Your task to perform on an android device: Add logitech g933 to the cart on target Image 0: 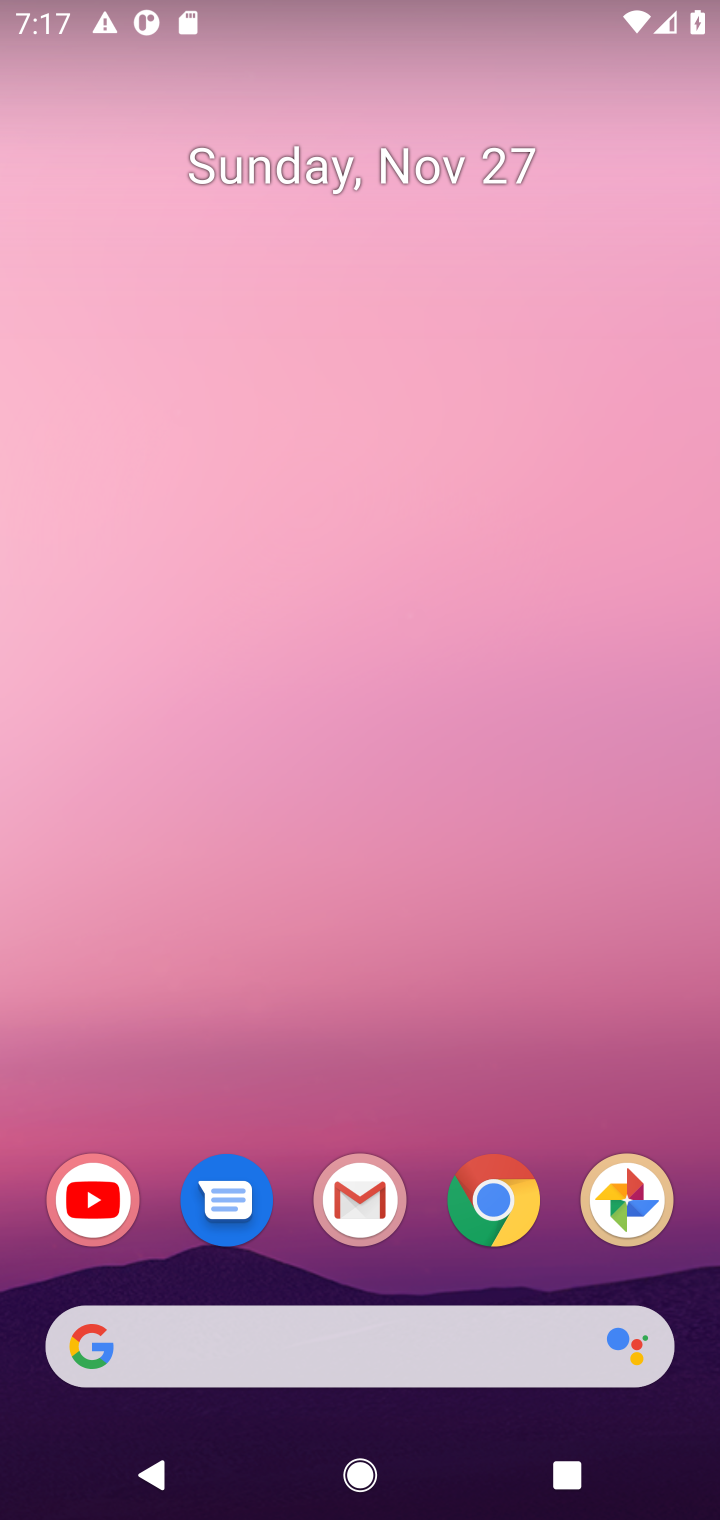
Step 0: click (486, 1216)
Your task to perform on an android device: Add logitech g933 to the cart on target Image 1: 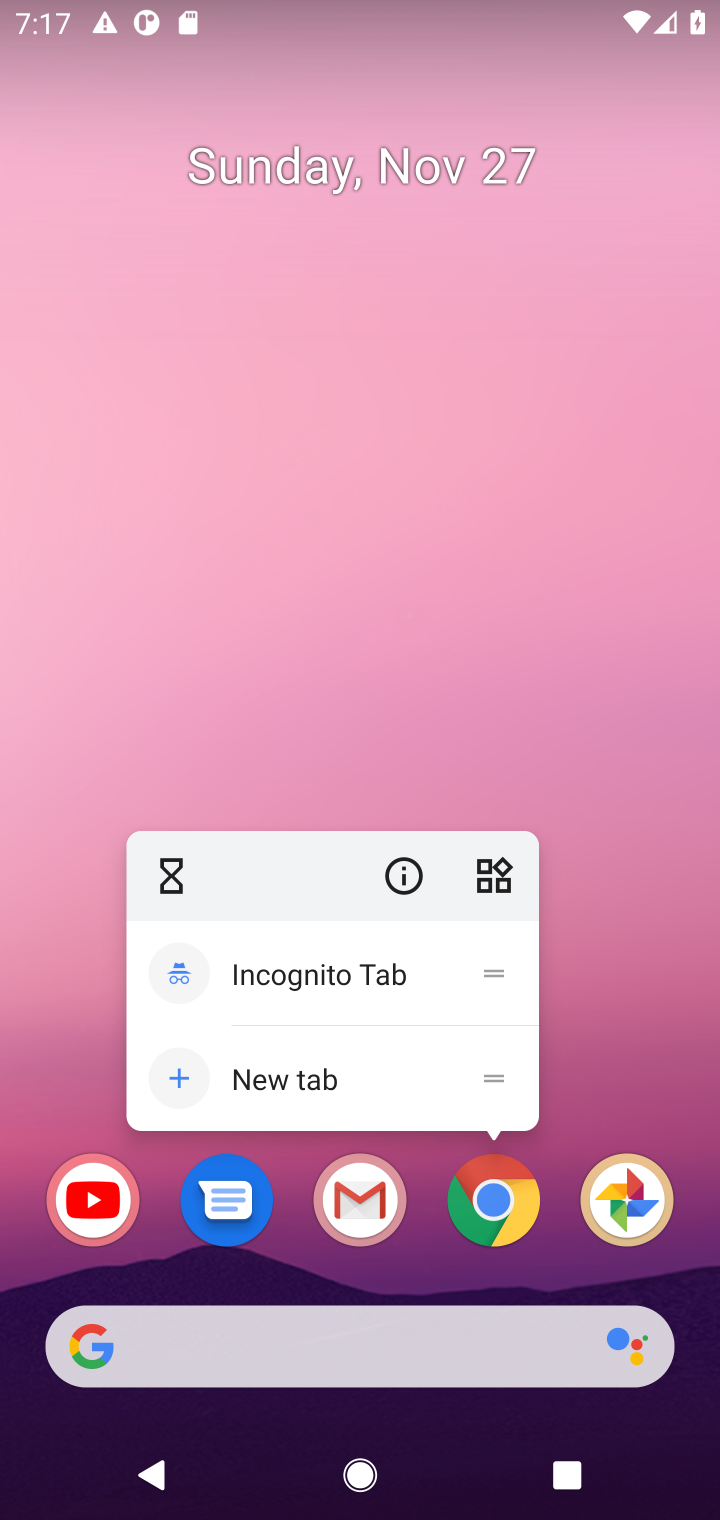
Step 1: click (486, 1216)
Your task to perform on an android device: Add logitech g933 to the cart on target Image 2: 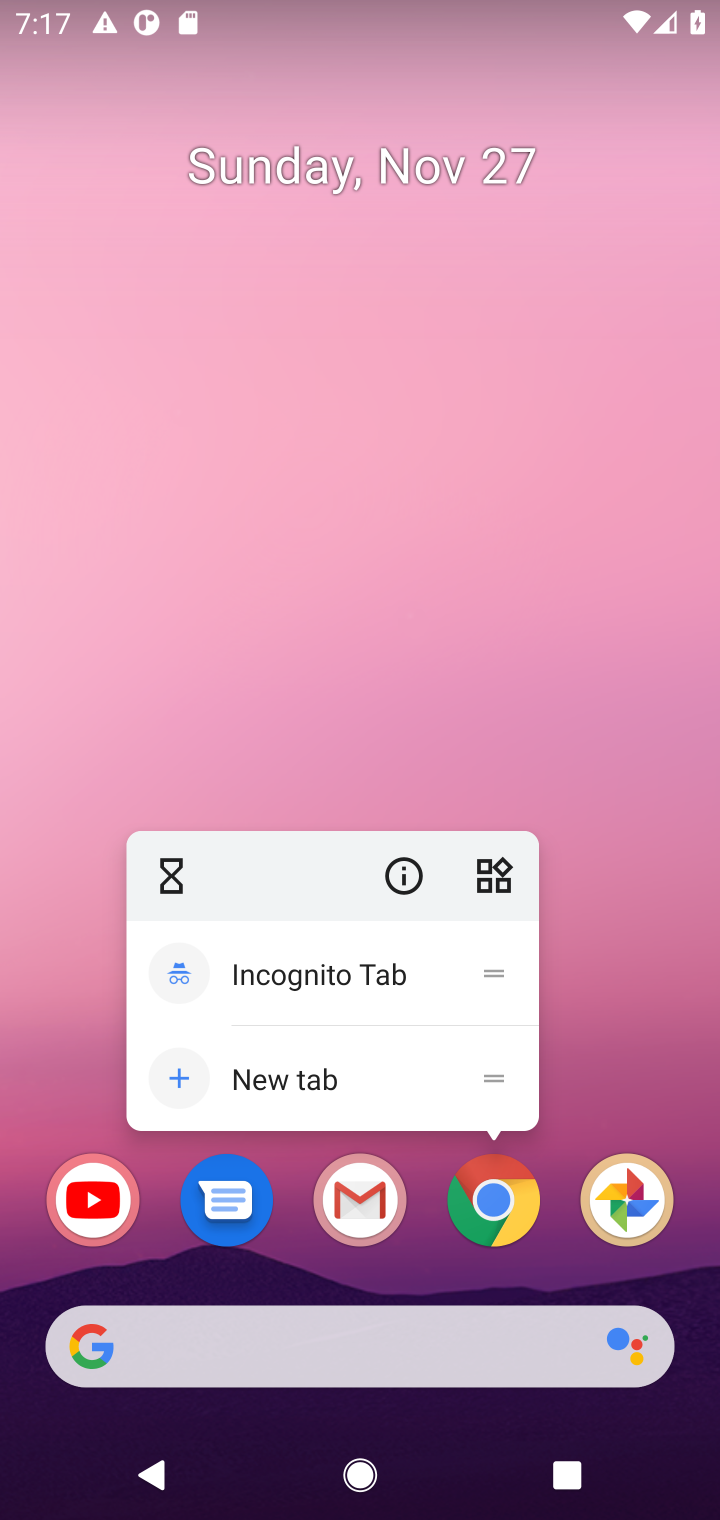
Step 2: click (486, 1216)
Your task to perform on an android device: Add logitech g933 to the cart on target Image 3: 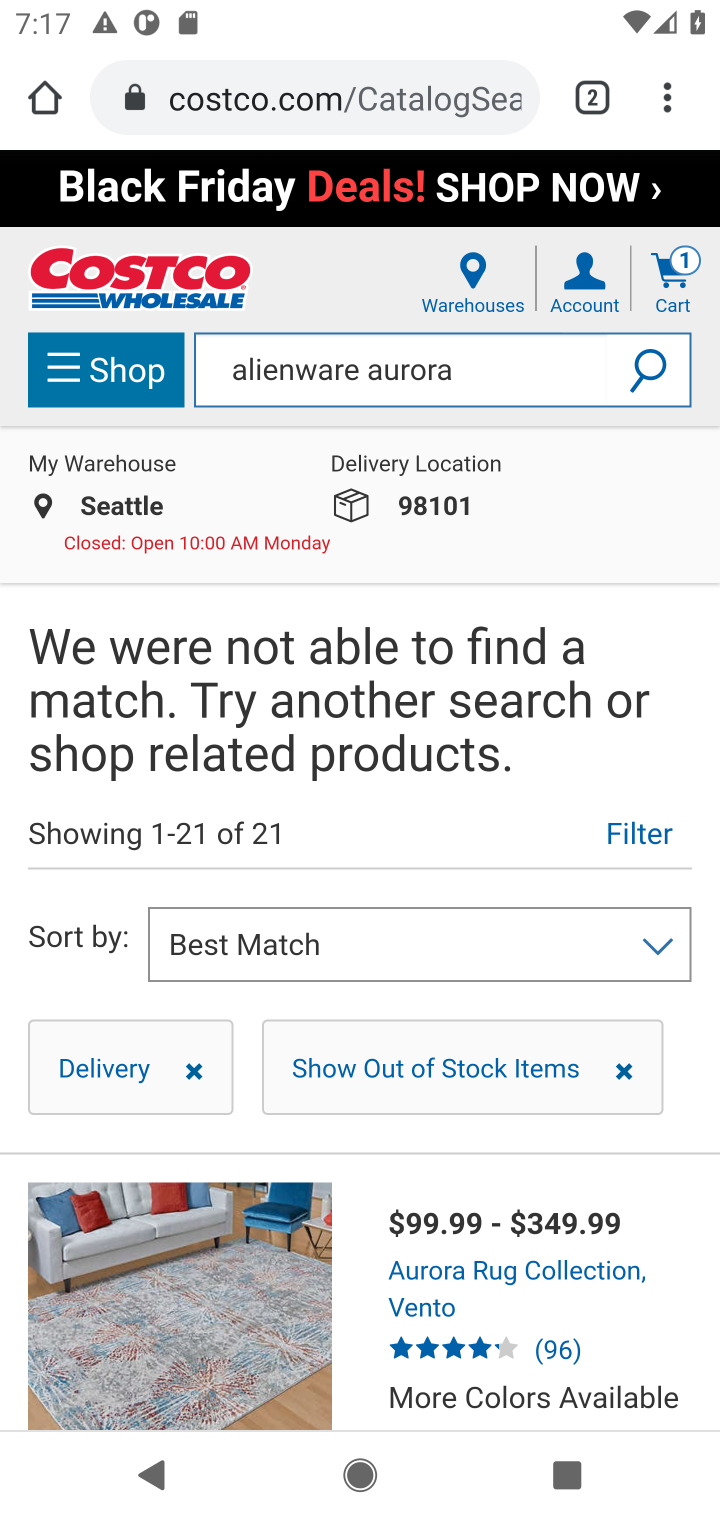
Step 3: click (295, 118)
Your task to perform on an android device: Add logitech g933 to the cart on target Image 4: 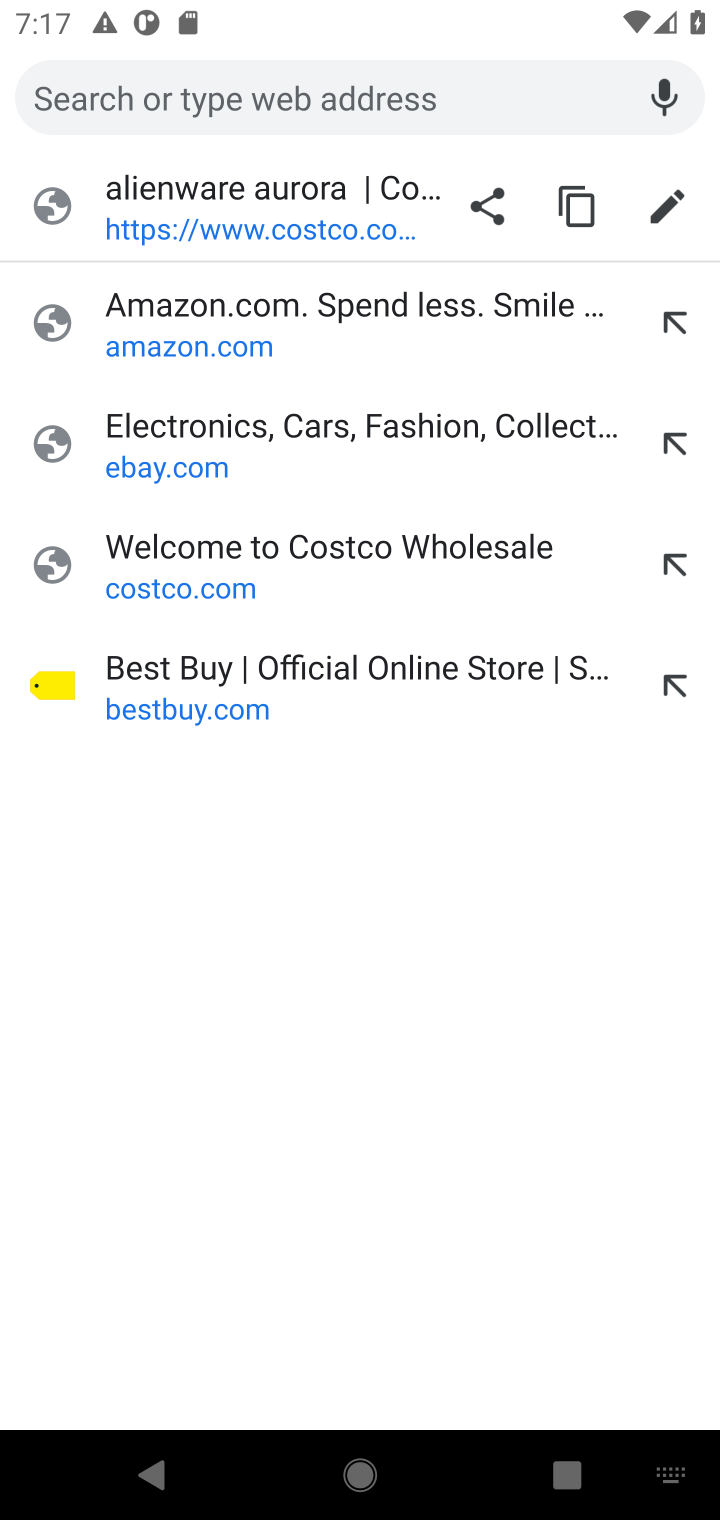
Step 4: type "target.com"
Your task to perform on an android device: Add logitech g933 to the cart on target Image 5: 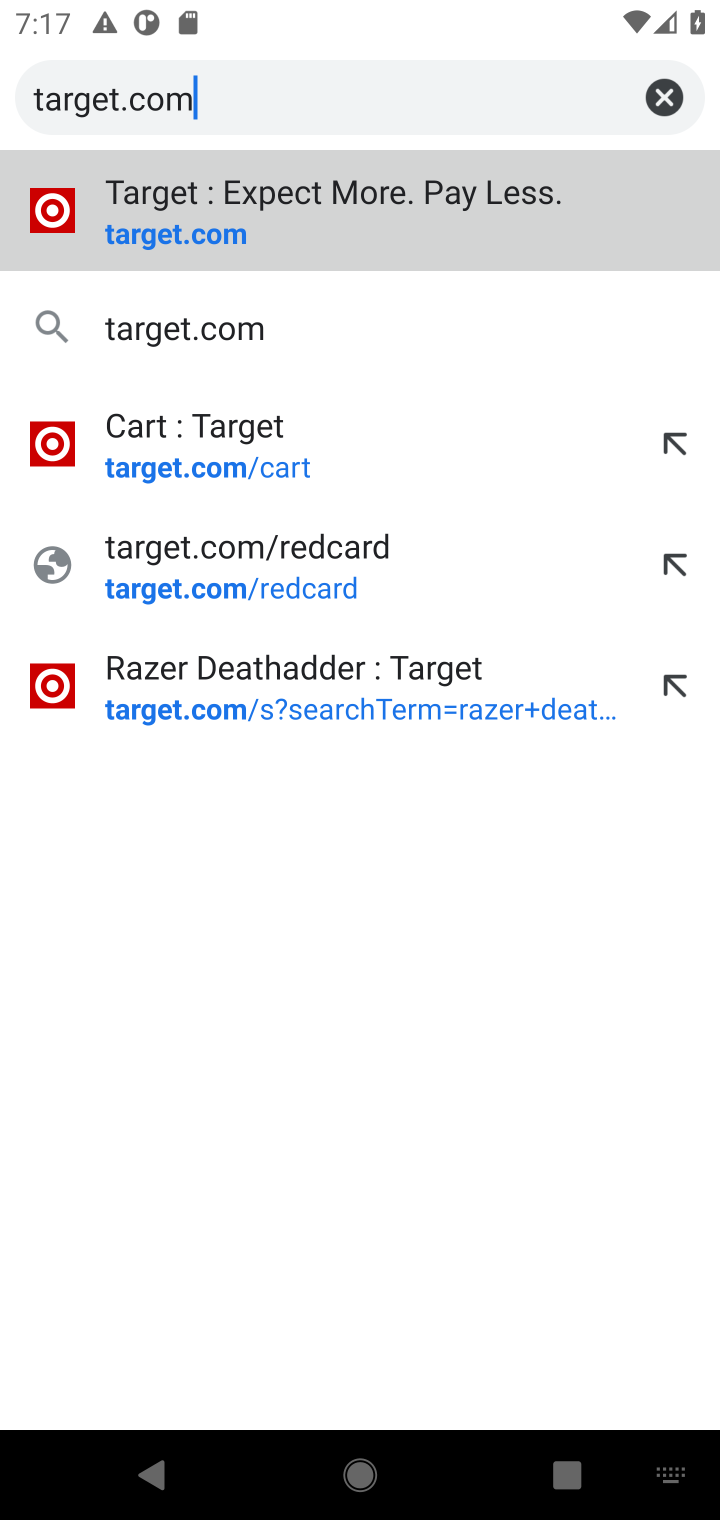
Step 5: click (127, 93)
Your task to perform on an android device: Add logitech g933 to the cart on target Image 6: 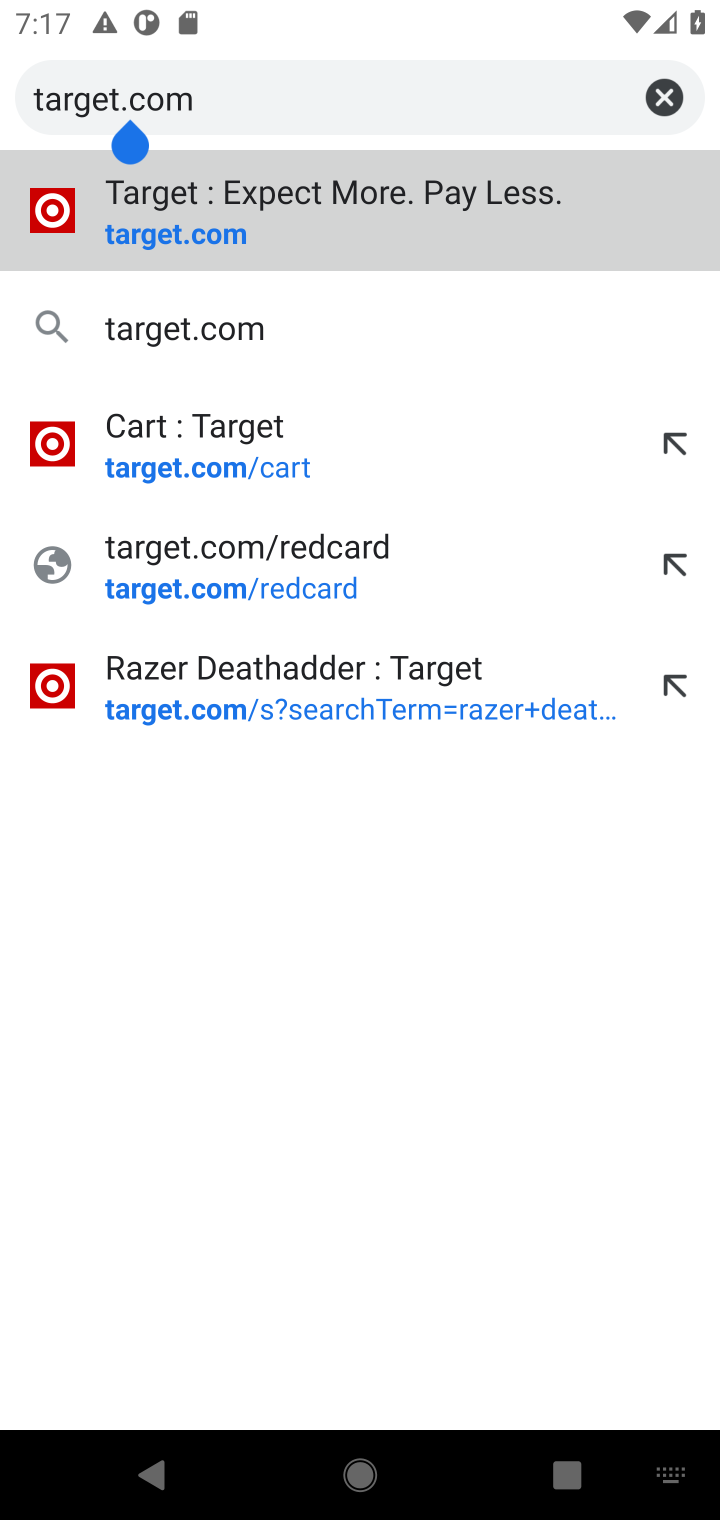
Step 6: click (112, 209)
Your task to perform on an android device: Add logitech g933 to the cart on target Image 7: 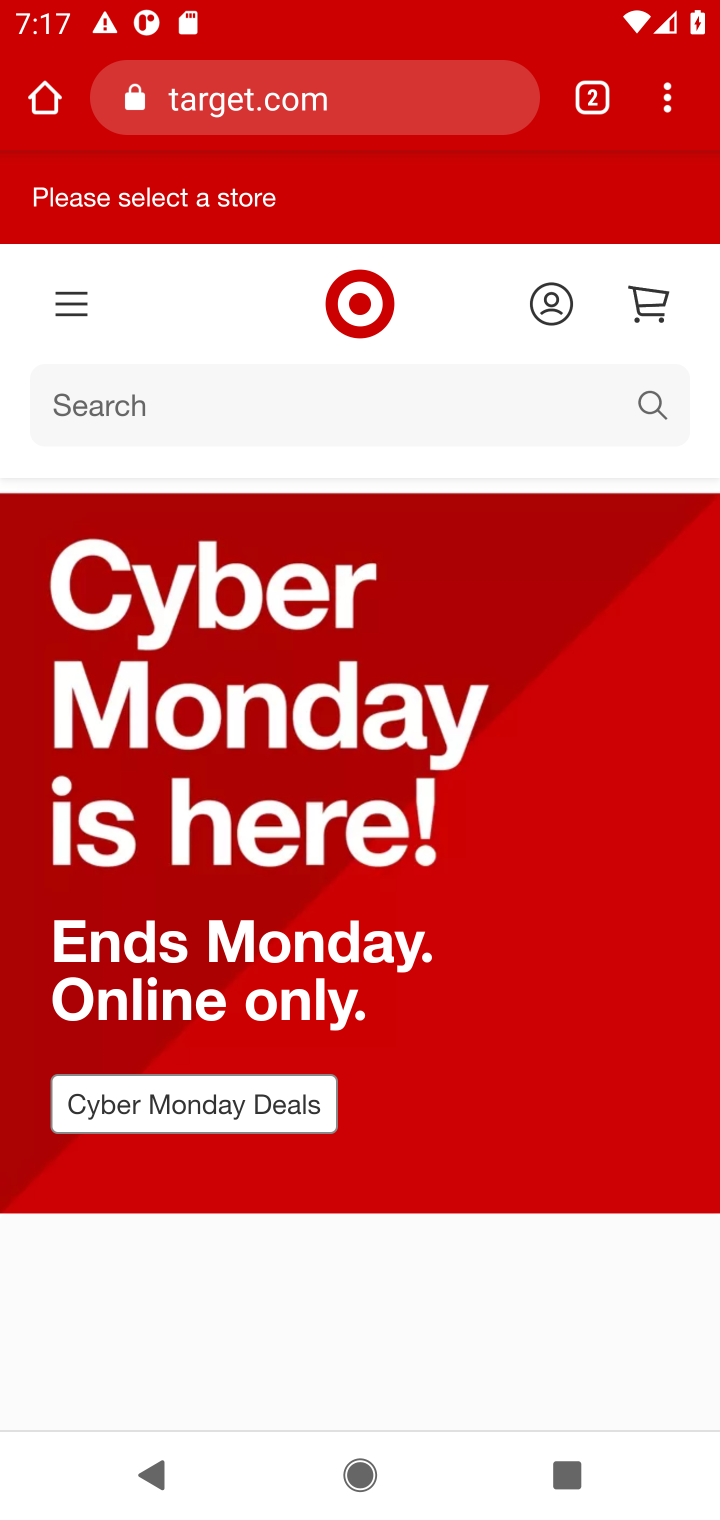
Step 7: click (653, 411)
Your task to perform on an android device: Add logitech g933 to the cart on target Image 8: 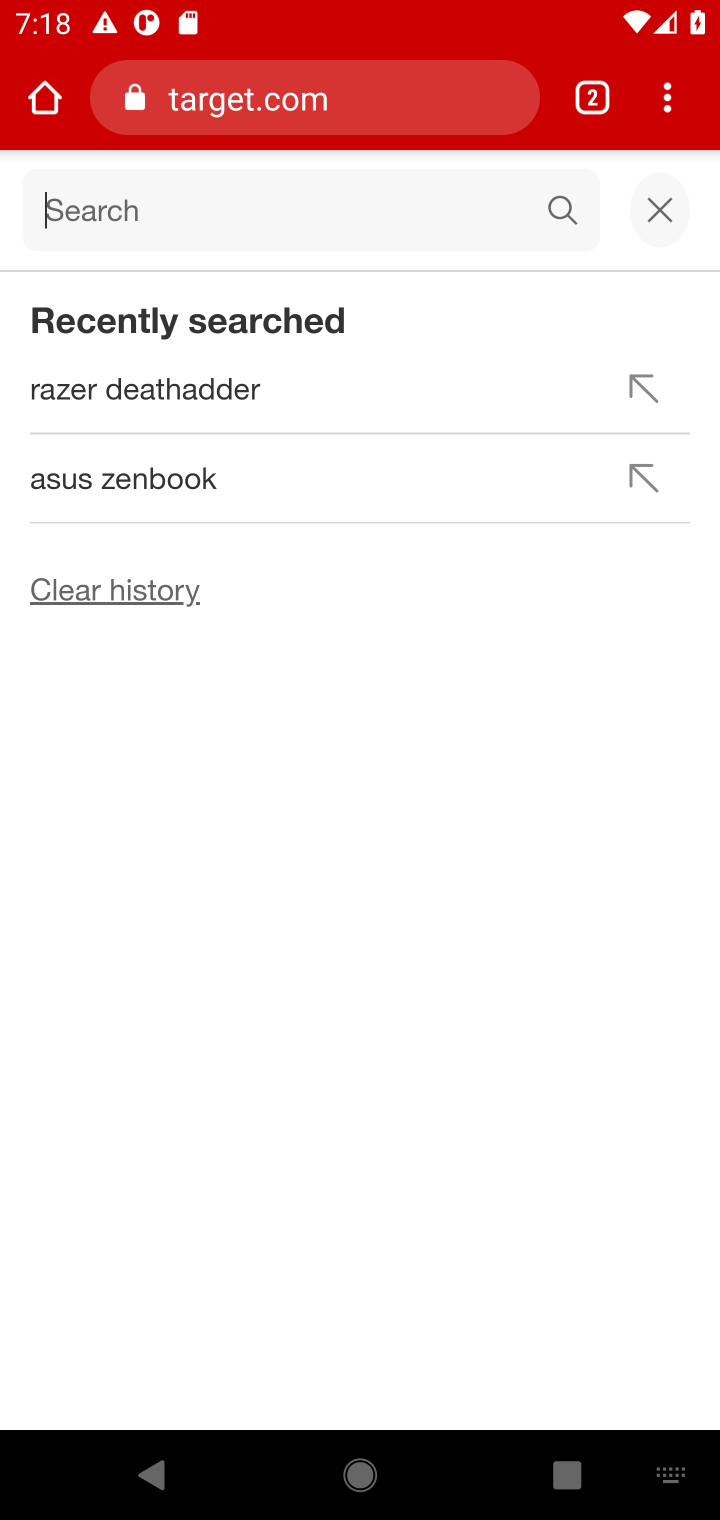
Step 8: type " logitech g933"
Your task to perform on an android device: Add logitech g933 to the cart on target Image 9: 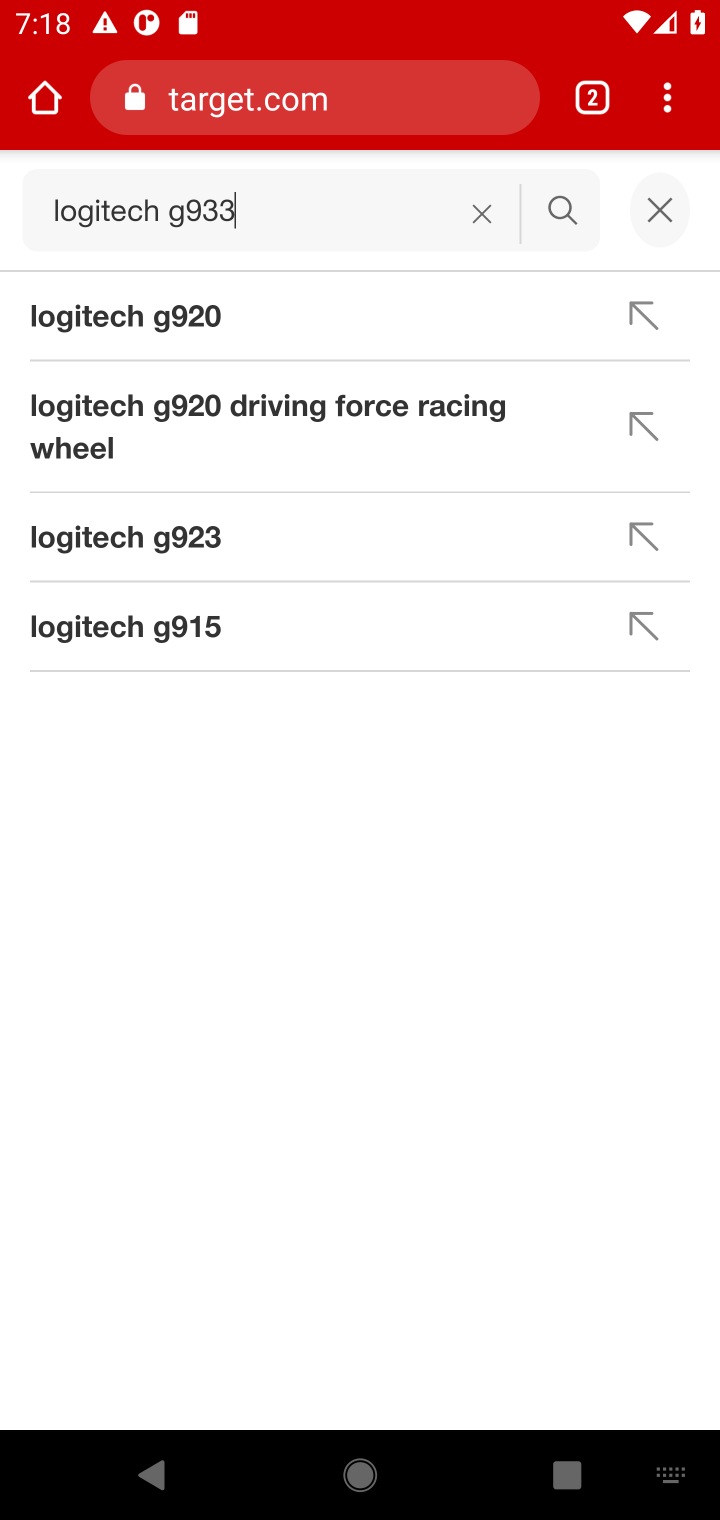
Step 9: click (570, 216)
Your task to perform on an android device: Add logitech g933 to the cart on target Image 10: 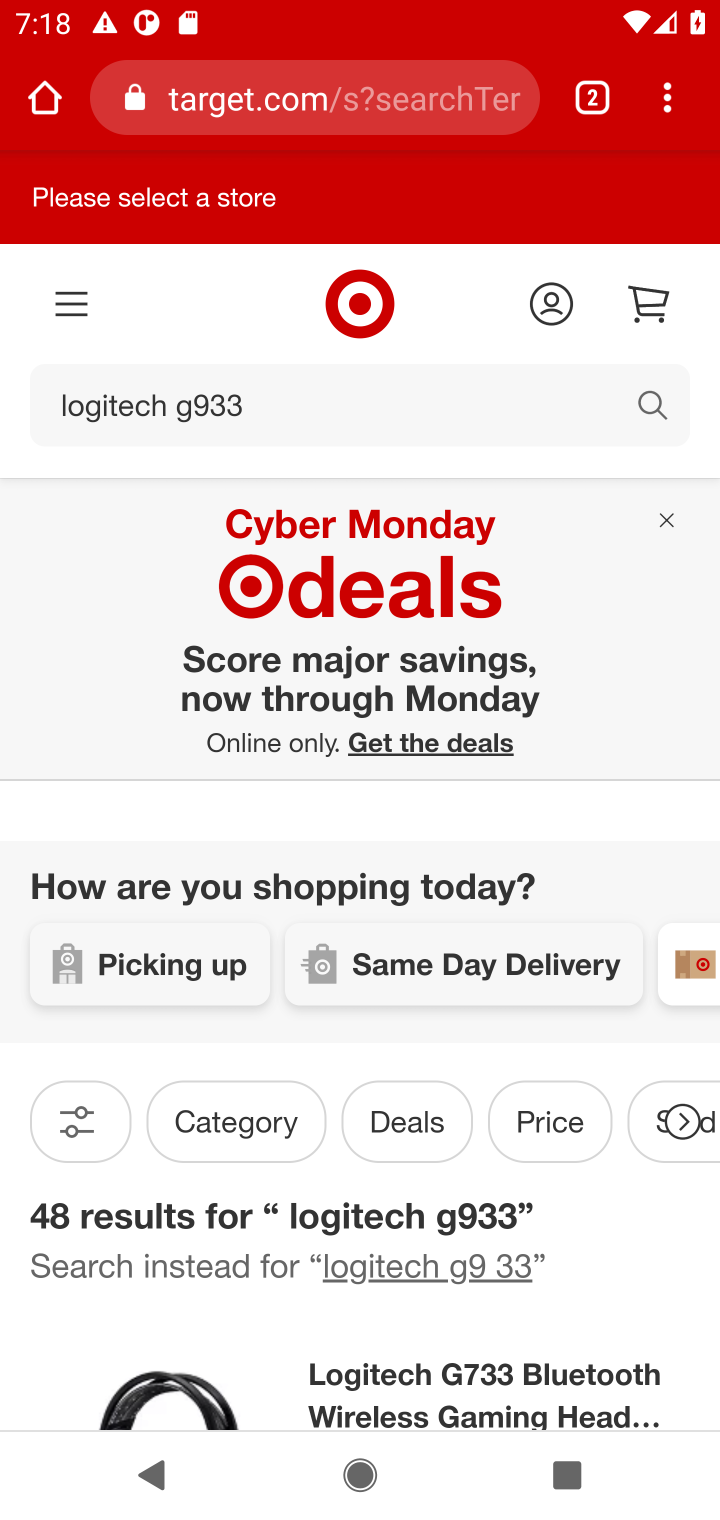
Step 10: drag from (259, 1259) to (257, 912)
Your task to perform on an android device: Add logitech g933 to the cart on target Image 11: 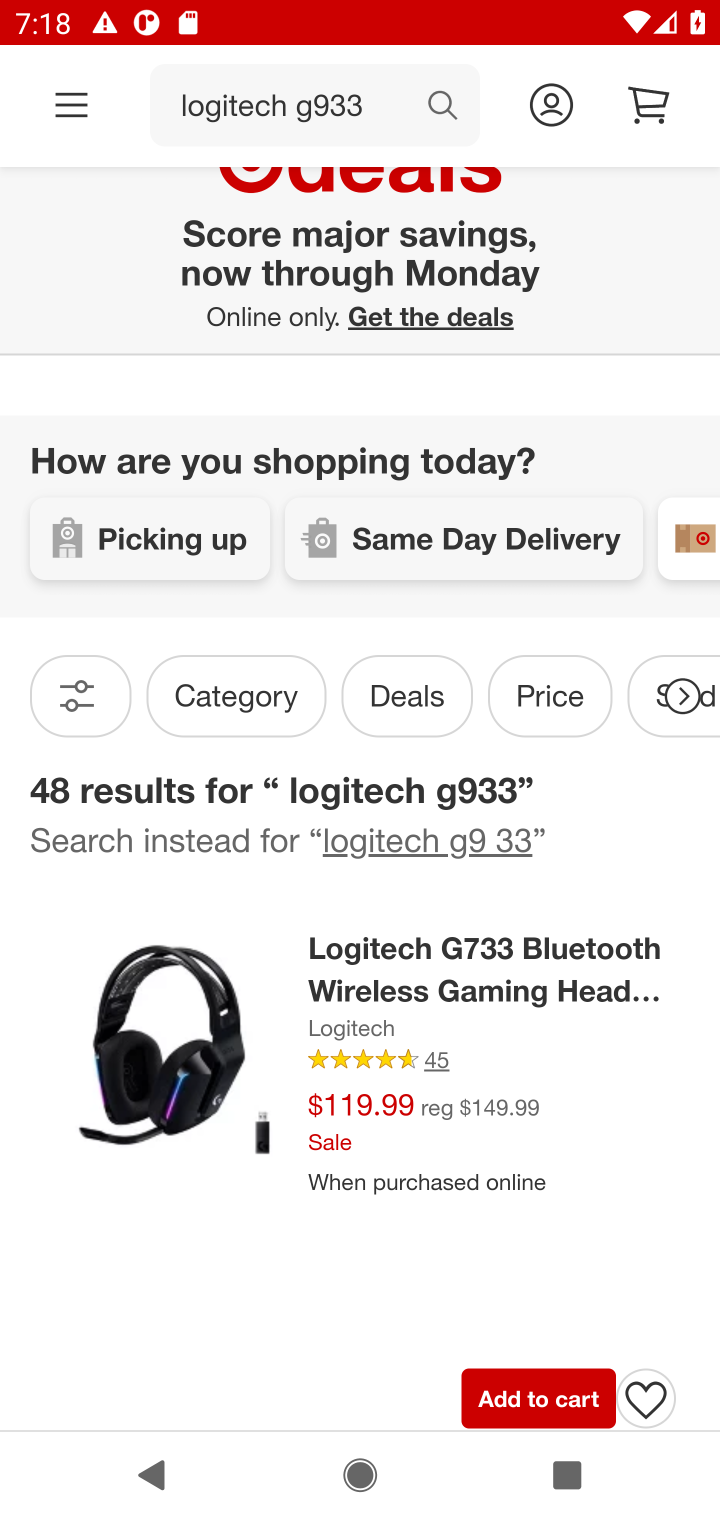
Step 11: drag from (242, 1192) to (230, 661)
Your task to perform on an android device: Add logitech g933 to the cart on target Image 12: 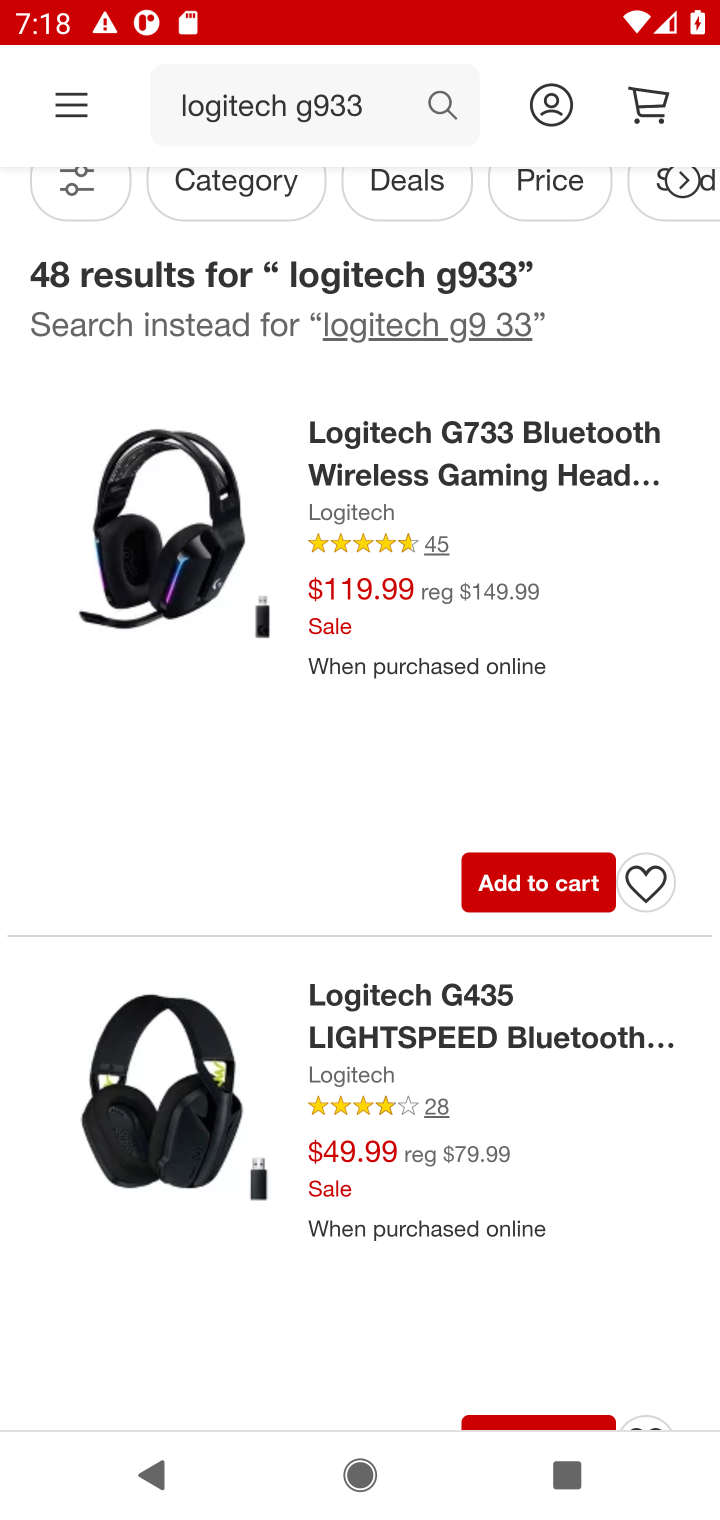
Step 12: drag from (213, 1240) to (247, 597)
Your task to perform on an android device: Add logitech g933 to the cart on target Image 13: 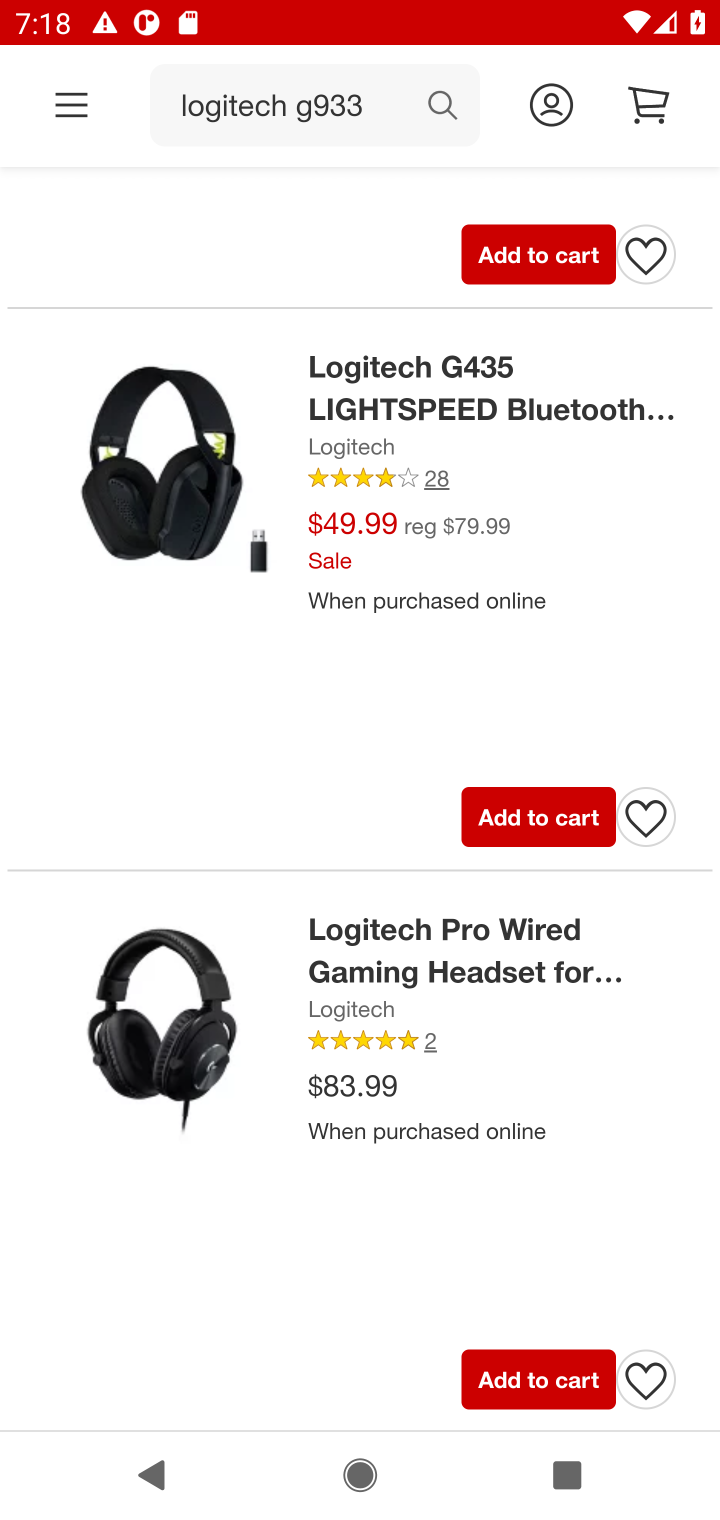
Step 13: drag from (151, 948) to (158, 536)
Your task to perform on an android device: Add logitech g933 to the cart on target Image 14: 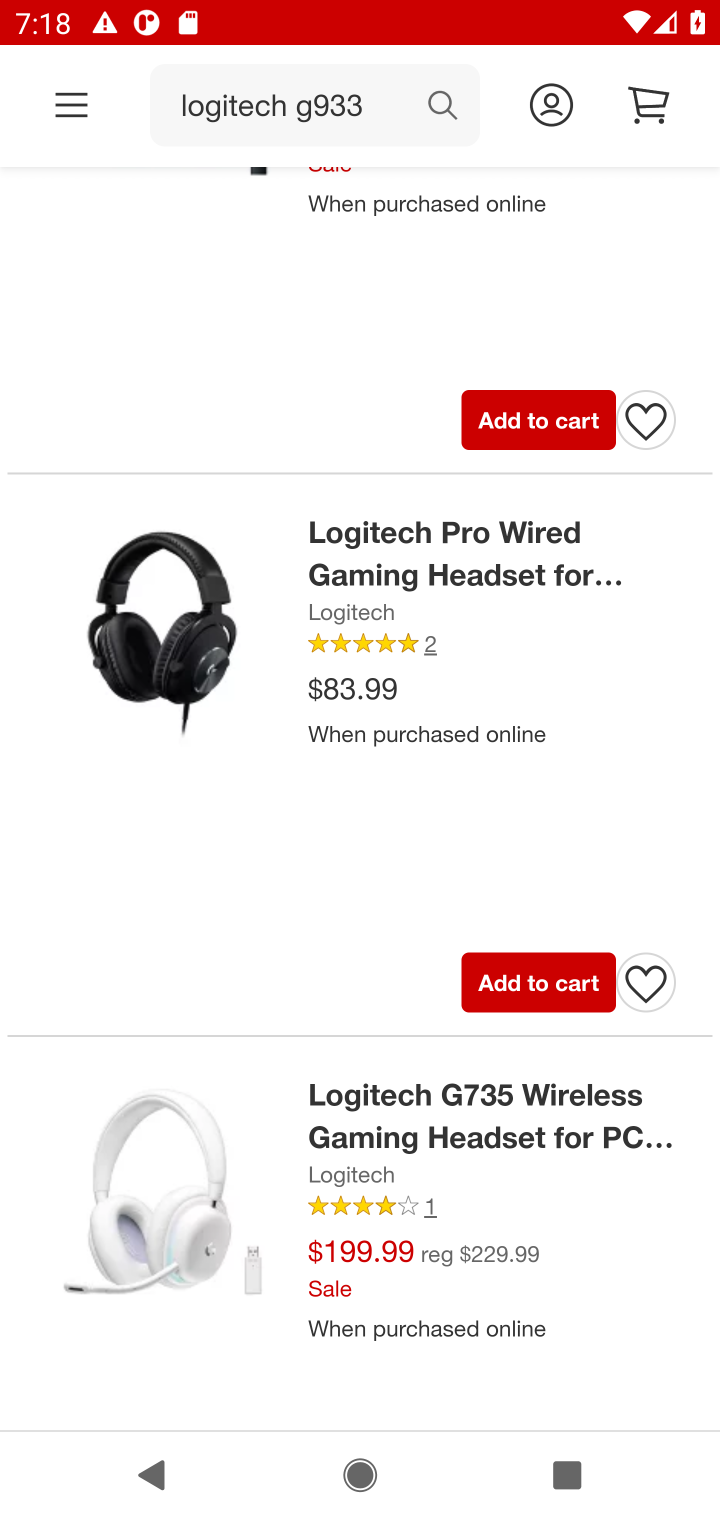
Step 14: drag from (158, 1206) to (194, 593)
Your task to perform on an android device: Add logitech g933 to the cart on target Image 15: 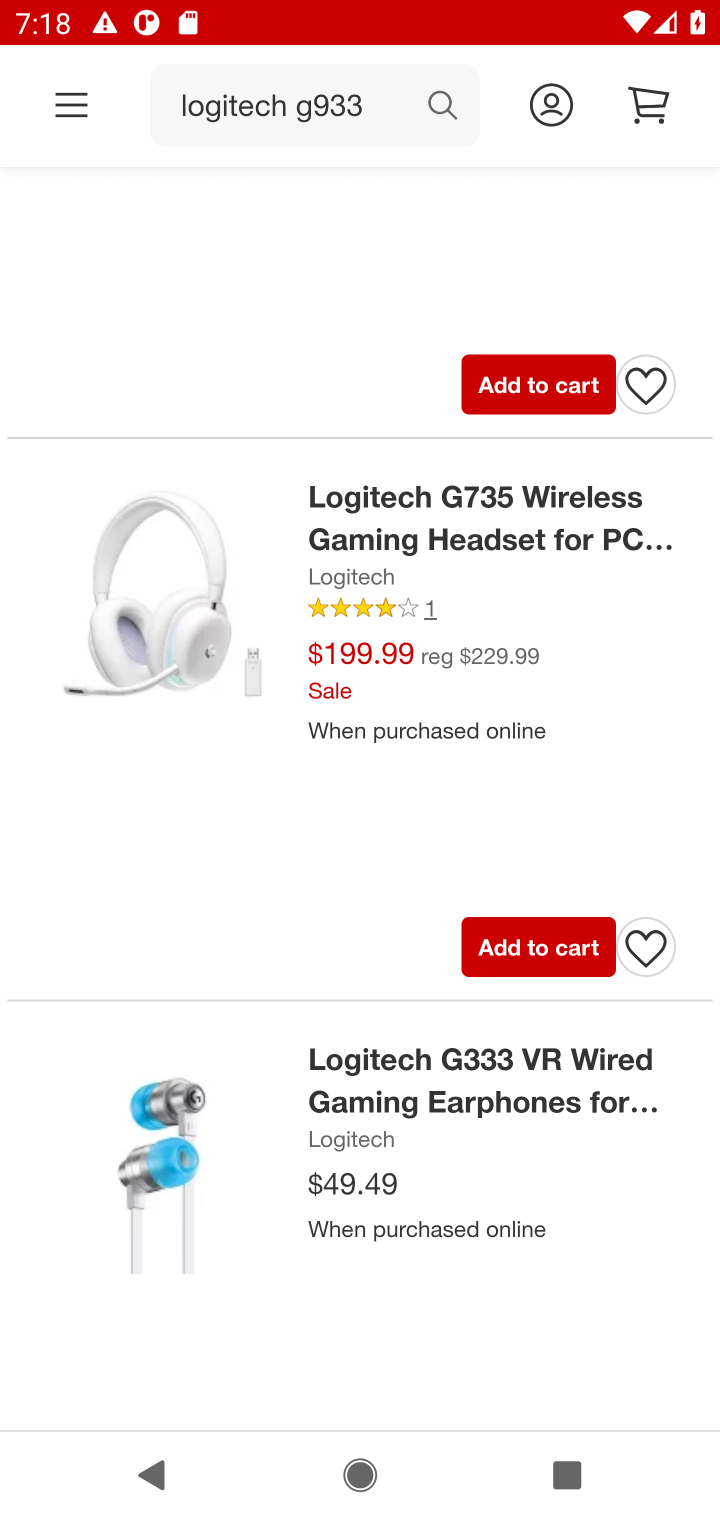
Step 15: drag from (193, 1247) to (164, 809)
Your task to perform on an android device: Add logitech g933 to the cart on target Image 16: 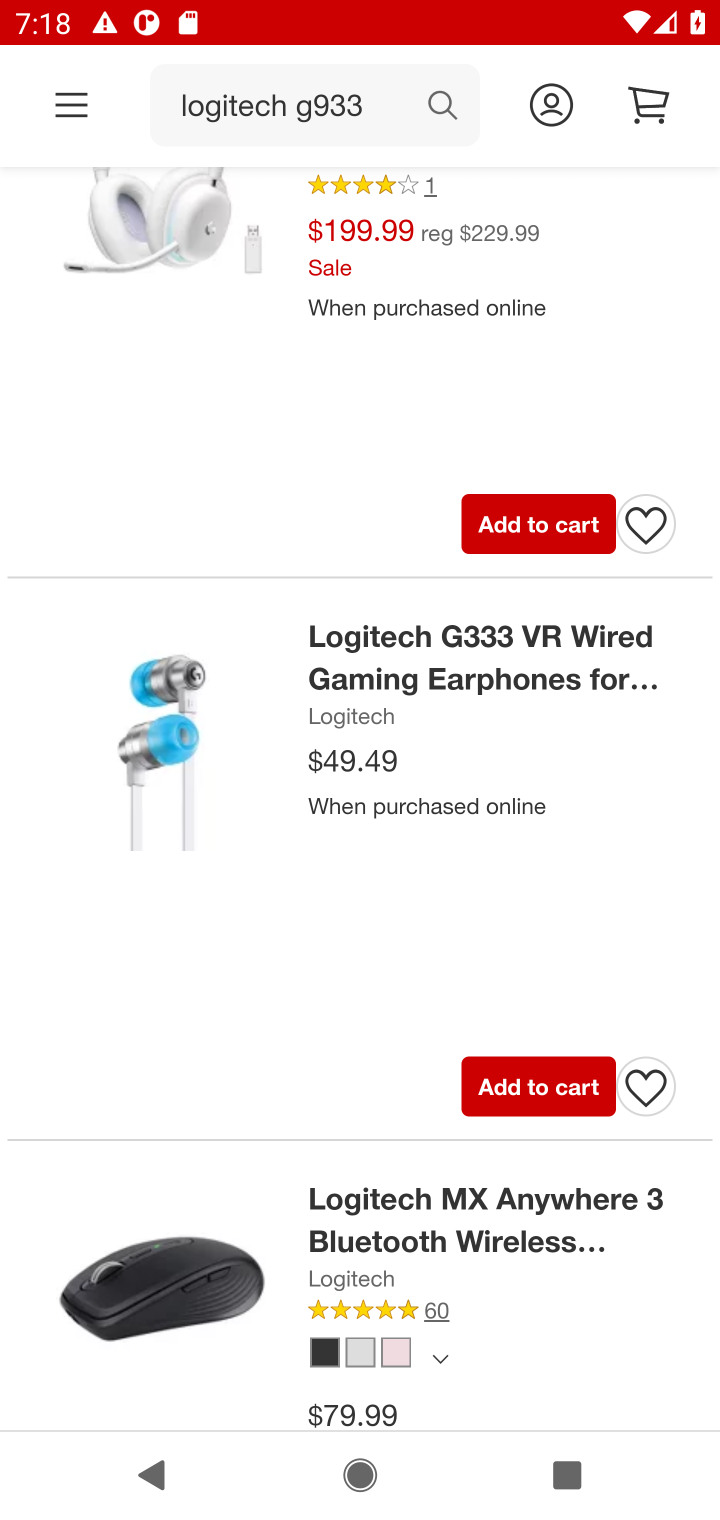
Step 16: drag from (162, 901) to (253, 408)
Your task to perform on an android device: Add logitech g933 to the cart on target Image 17: 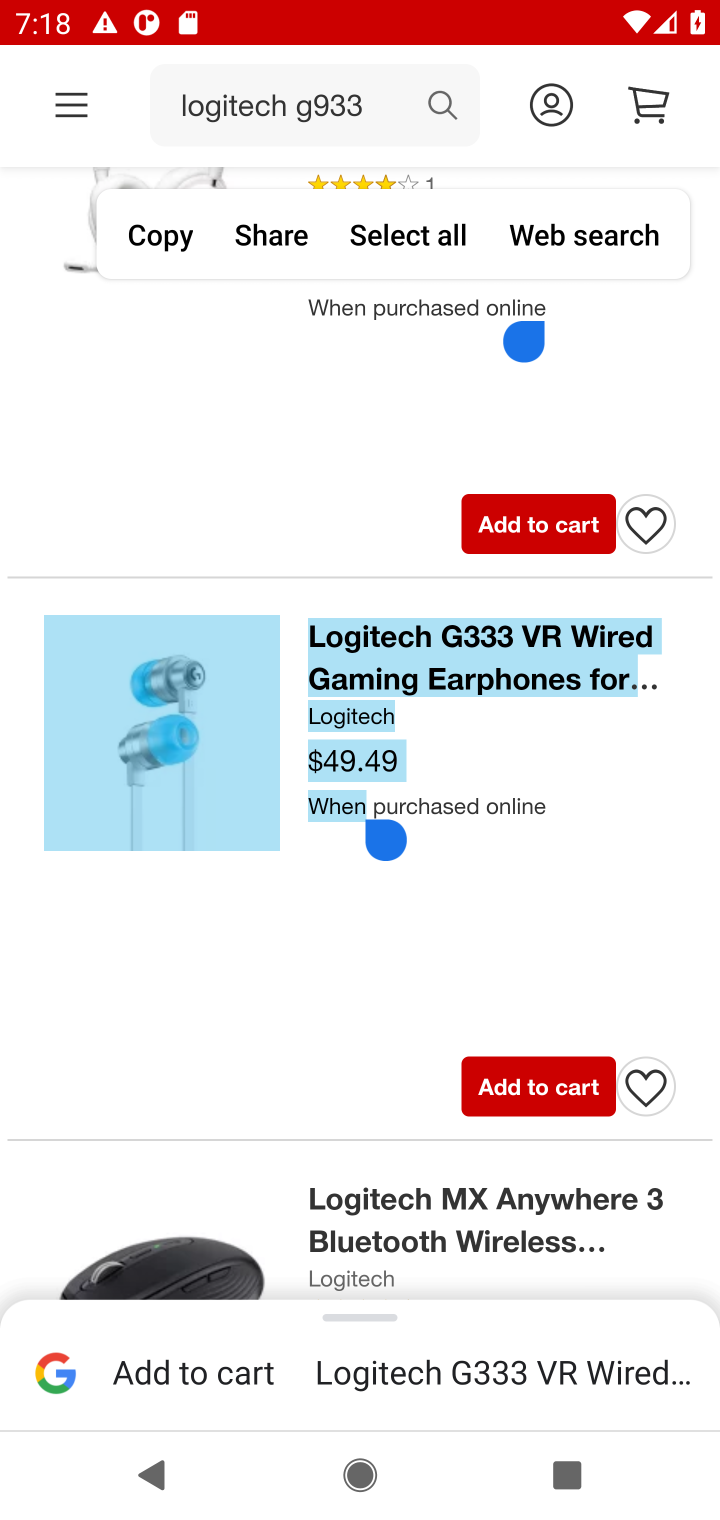
Step 17: click (210, 912)
Your task to perform on an android device: Add logitech g933 to the cart on target Image 18: 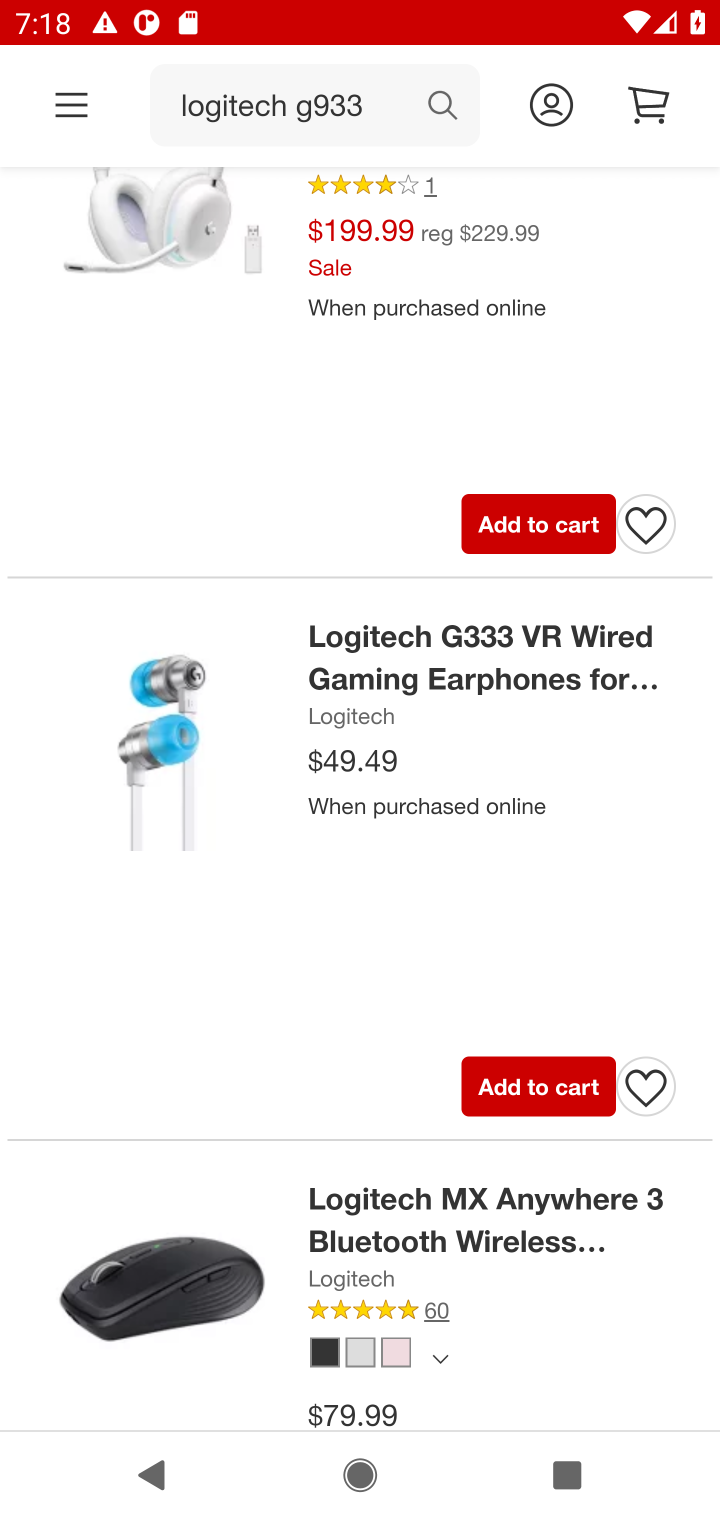
Step 18: task complete